Your task to perform on an android device: Open Yahoo.com Image 0: 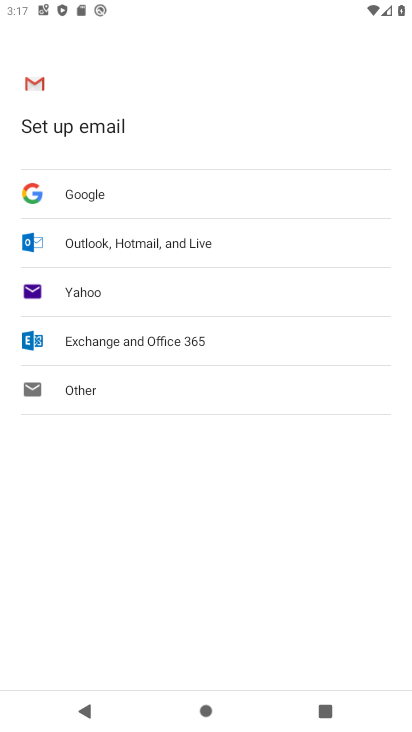
Step 0: press home button
Your task to perform on an android device: Open Yahoo.com Image 1: 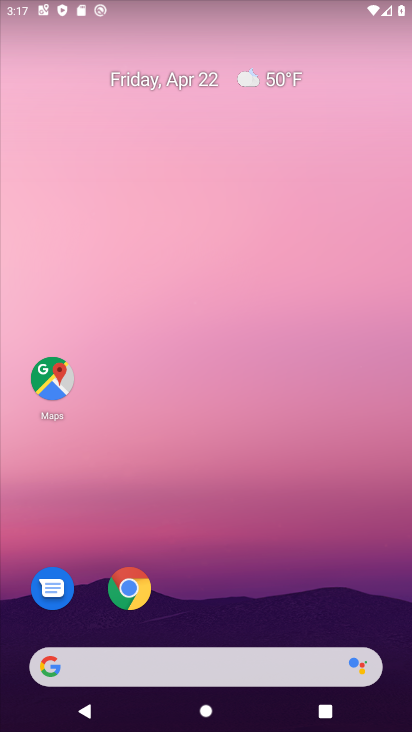
Step 1: drag from (281, 500) to (322, 136)
Your task to perform on an android device: Open Yahoo.com Image 2: 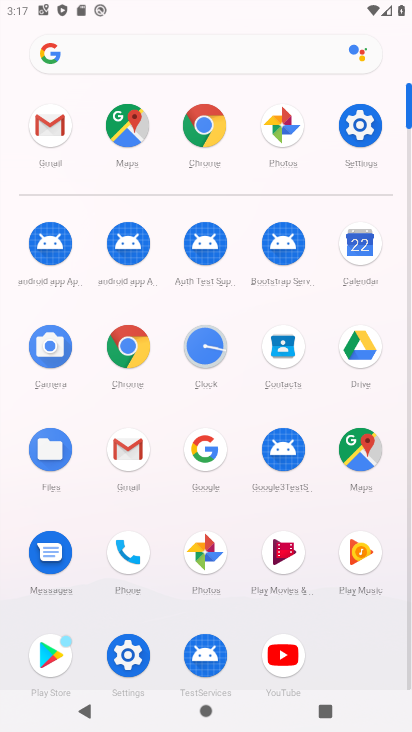
Step 2: click (206, 127)
Your task to perform on an android device: Open Yahoo.com Image 3: 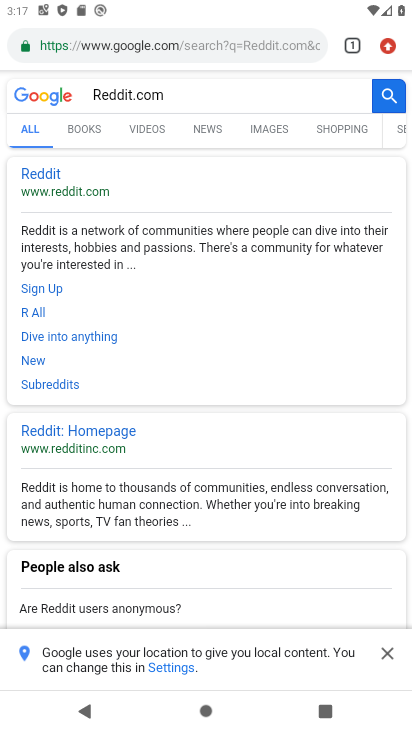
Step 3: click (221, 46)
Your task to perform on an android device: Open Yahoo.com Image 4: 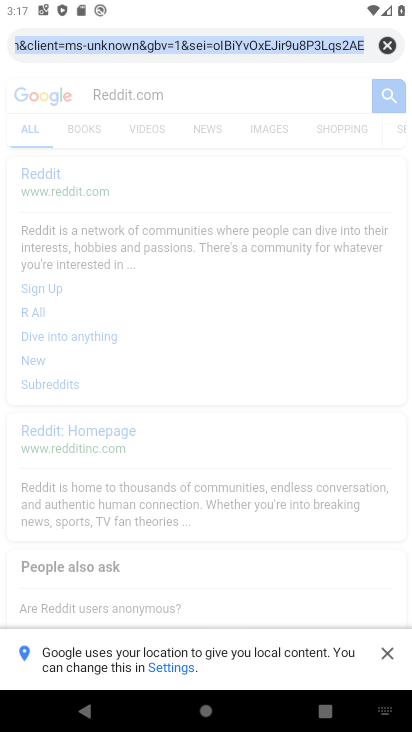
Step 4: click (386, 37)
Your task to perform on an android device: Open Yahoo.com Image 5: 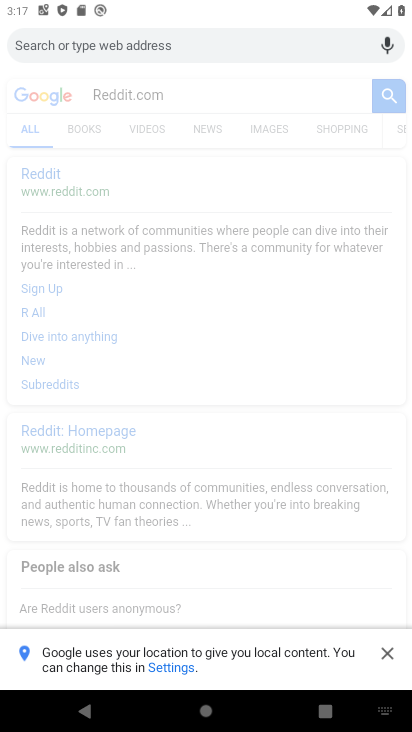
Step 5: type "yahoo.com"
Your task to perform on an android device: Open Yahoo.com Image 6: 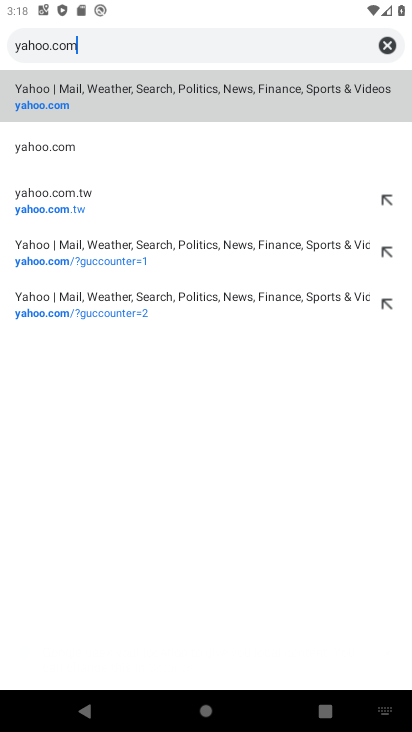
Step 6: click (213, 93)
Your task to perform on an android device: Open Yahoo.com Image 7: 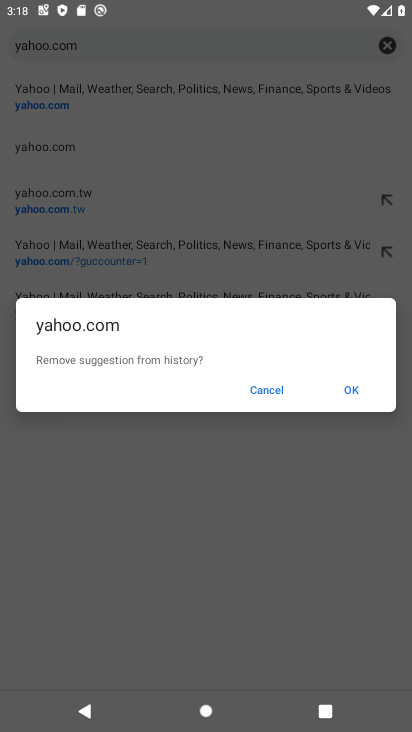
Step 7: click (262, 391)
Your task to perform on an android device: Open Yahoo.com Image 8: 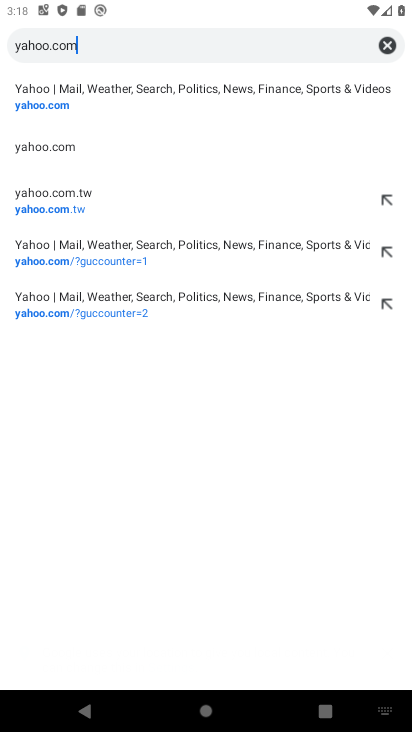
Step 8: click (41, 140)
Your task to perform on an android device: Open Yahoo.com Image 9: 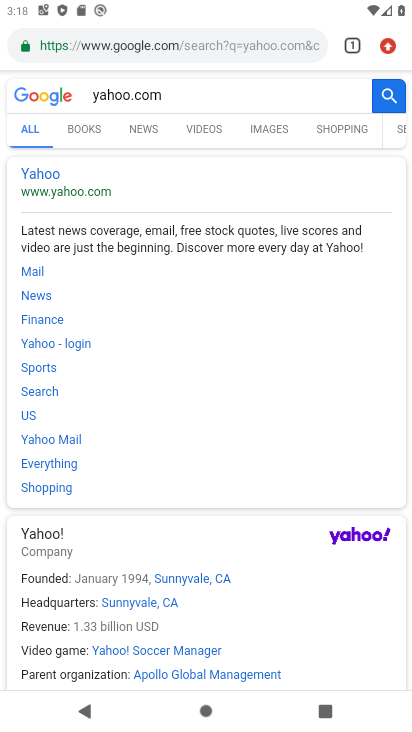
Step 9: task complete